Your task to perform on an android device: add a contact in the contacts app Image 0: 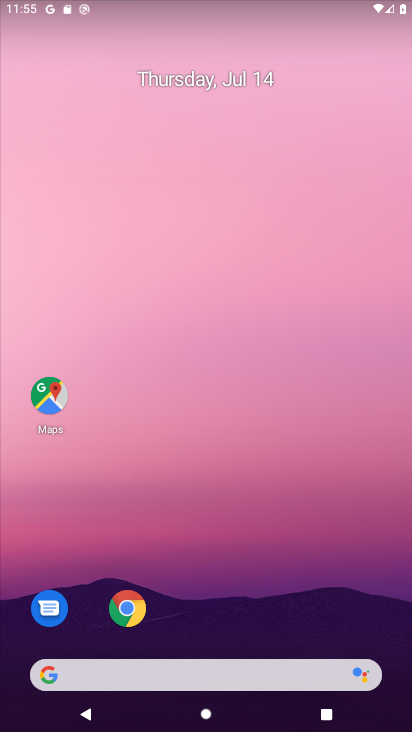
Step 0: drag from (247, 569) to (106, 85)
Your task to perform on an android device: add a contact in the contacts app Image 1: 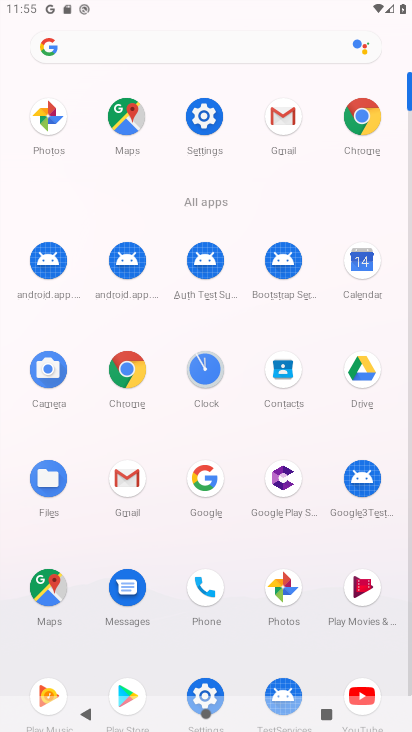
Step 1: click (279, 373)
Your task to perform on an android device: add a contact in the contacts app Image 2: 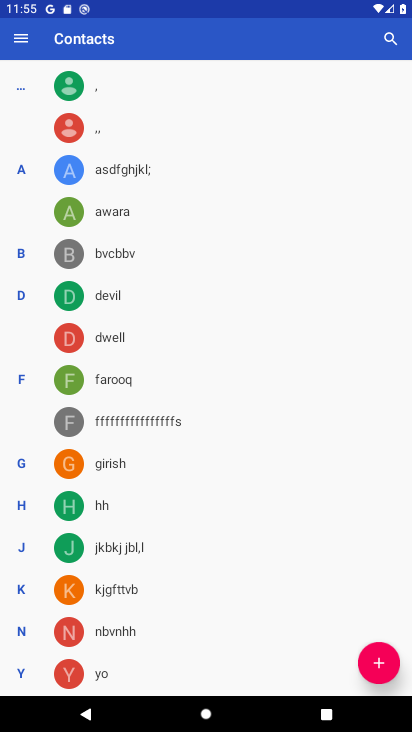
Step 2: click (381, 664)
Your task to perform on an android device: add a contact in the contacts app Image 3: 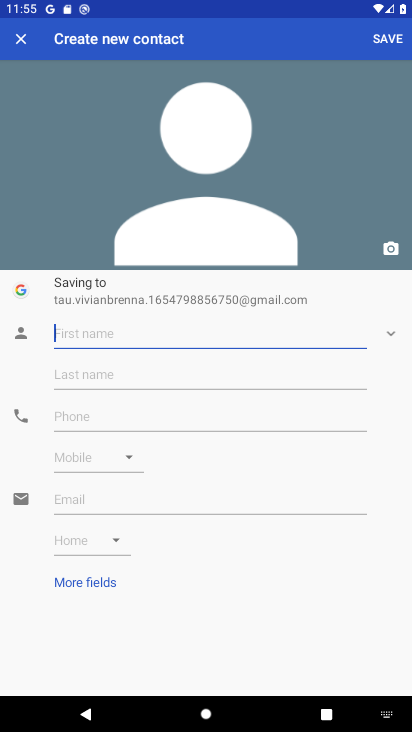
Step 3: type "gfddd"
Your task to perform on an android device: add a contact in the contacts app Image 4: 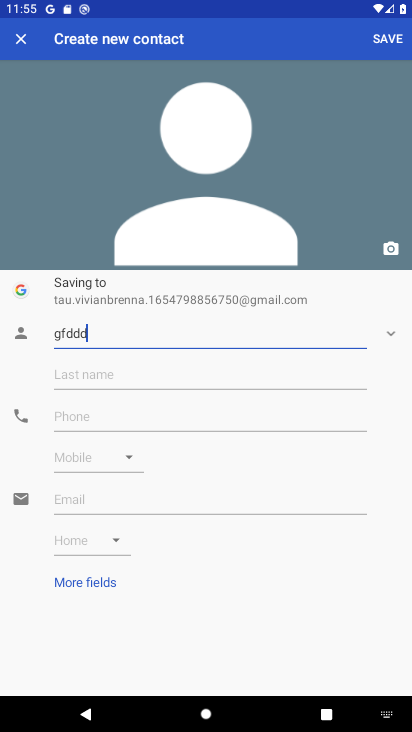
Step 4: click (125, 415)
Your task to perform on an android device: add a contact in the contacts app Image 5: 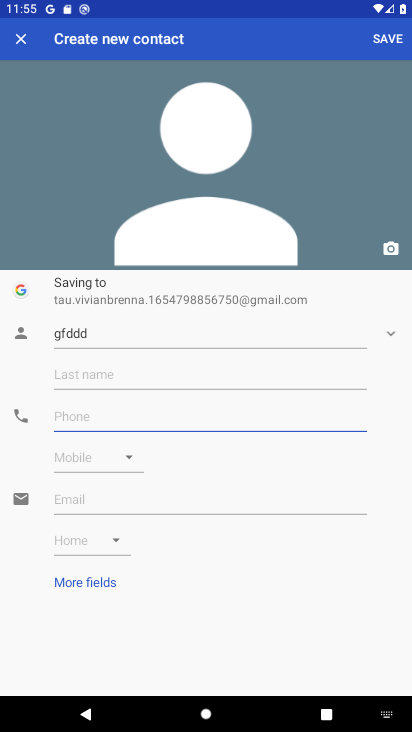
Step 5: type "6543"
Your task to perform on an android device: add a contact in the contacts app Image 6: 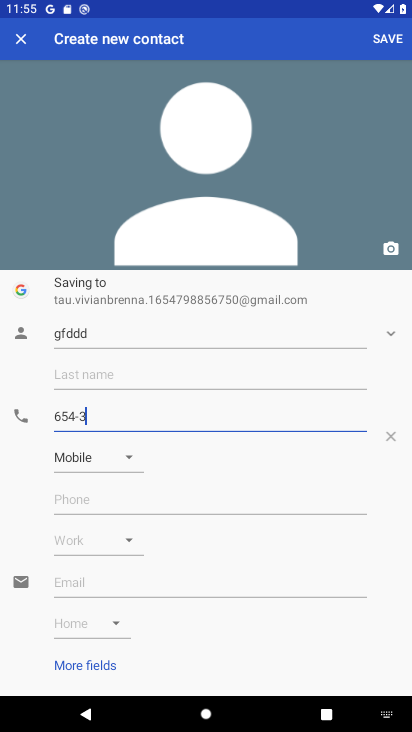
Step 6: click (383, 38)
Your task to perform on an android device: add a contact in the contacts app Image 7: 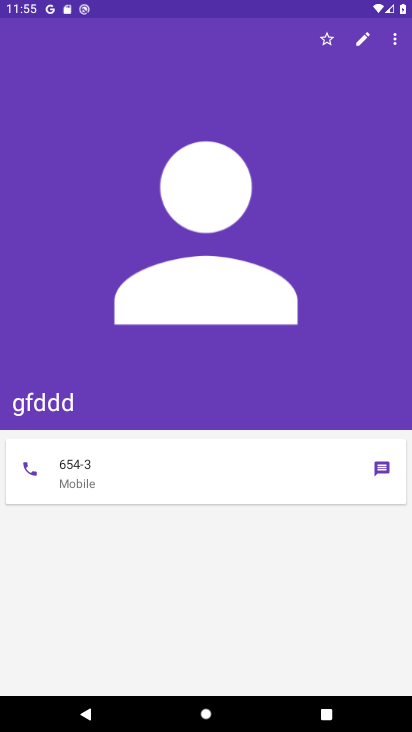
Step 7: task complete